Your task to perform on an android device: Open notification settings Image 0: 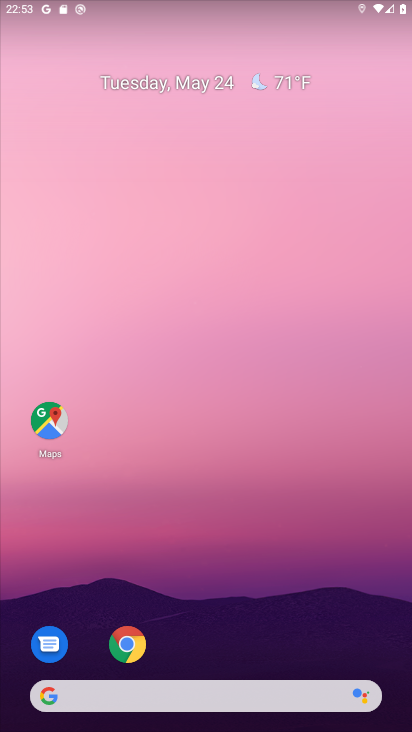
Step 0: drag from (242, 553) to (223, 233)
Your task to perform on an android device: Open notification settings Image 1: 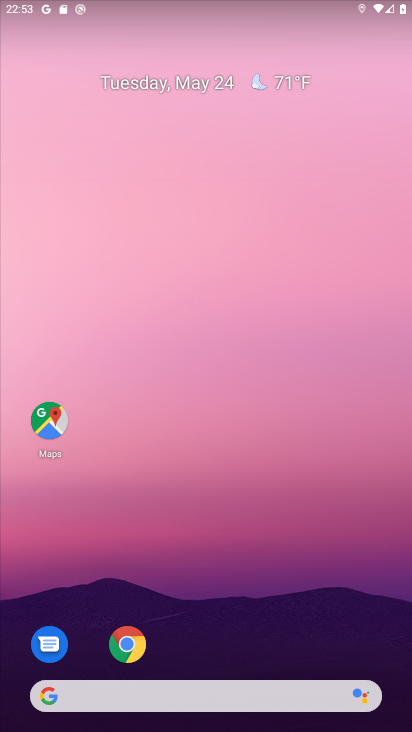
Step 1: drag from (213, 615) to (218, 196)
Your task to perform on an android device: Open notification settings Image 2: 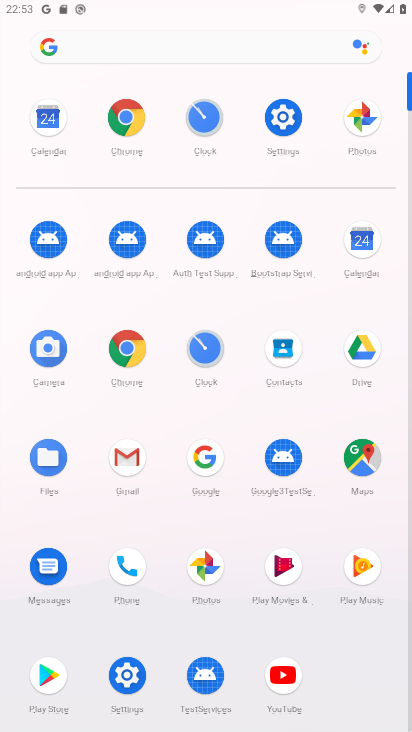
Step 2: click (283, 118)
Your task to perform on an android device: Open notification settings Image 3: 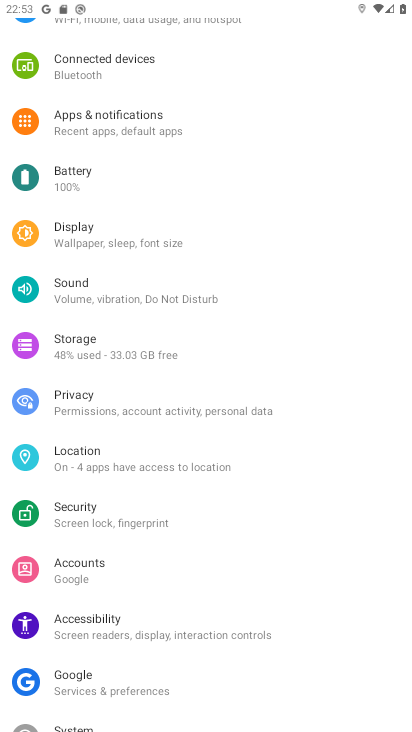
Step 3: click (107, 114)
Your task to perform on an android device: Open notification settings Image 4: 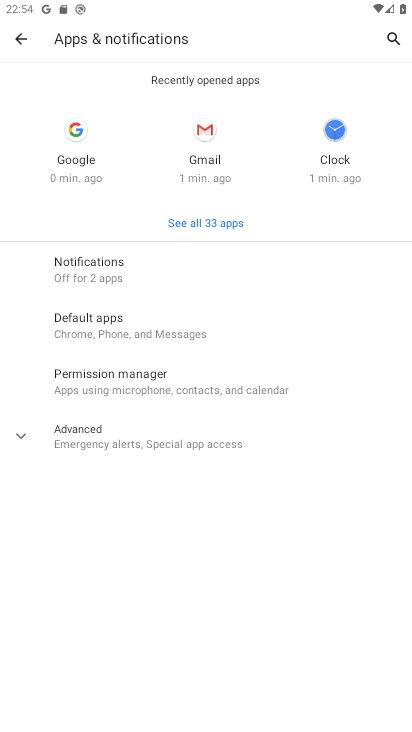
Step 4: task complete